Your task to perform on an android device: turn on notifications settings in the gmail app Image 0: 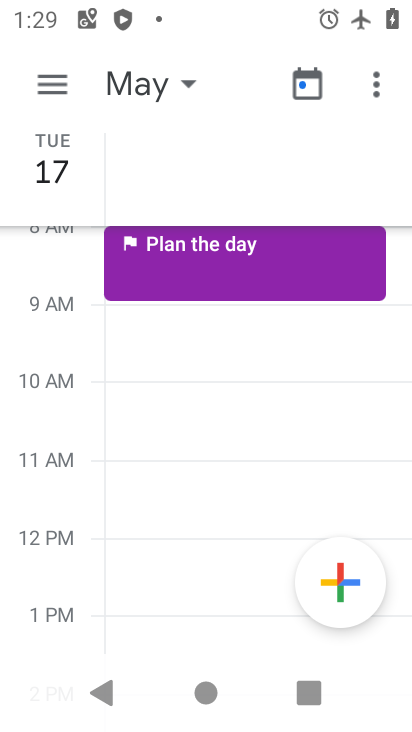
Step 0: press home button
Your task to perform on an android device: turn on notifications settings in the gmail app Image 1: 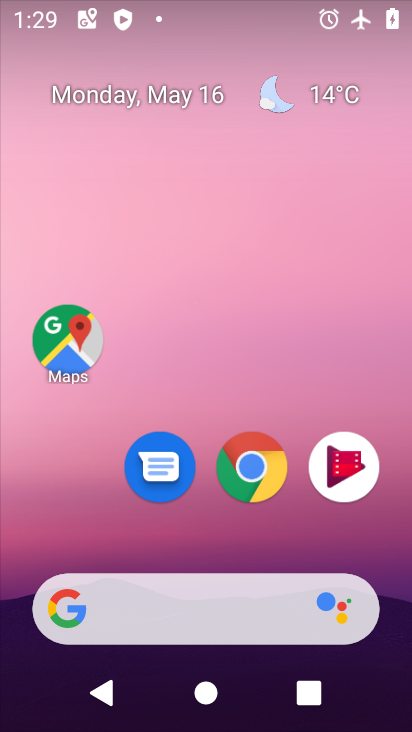
Step 1: drag from (228, 475) to (241, 254)
Your task to perform on an android device: turn on notifications settings in the gmail app Image 2: 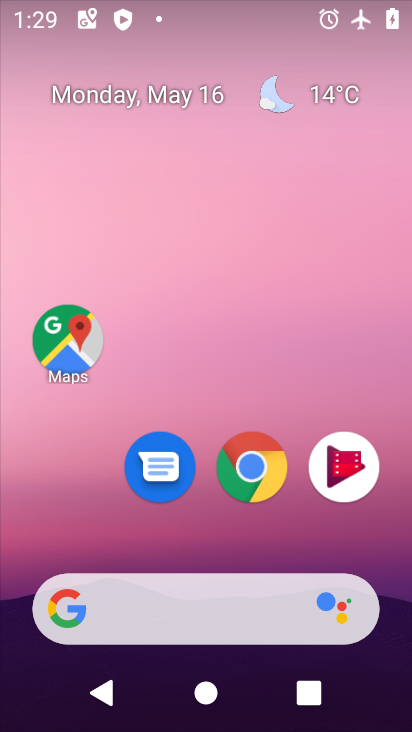
Step 2: drag from (231, 509) to (234, 201)
Your task to perform on an android device: turn on notifications settings in the gmail app Image 3: 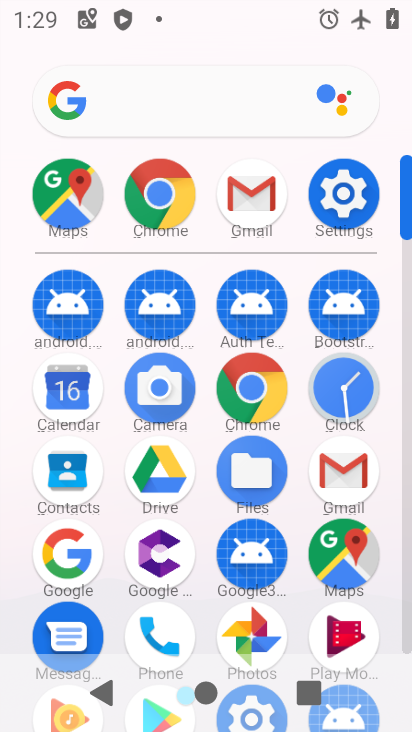
Step 3: click (355, 197)
Your task to perform on an android device: turn on notifications settings in the gmail app Image 4: 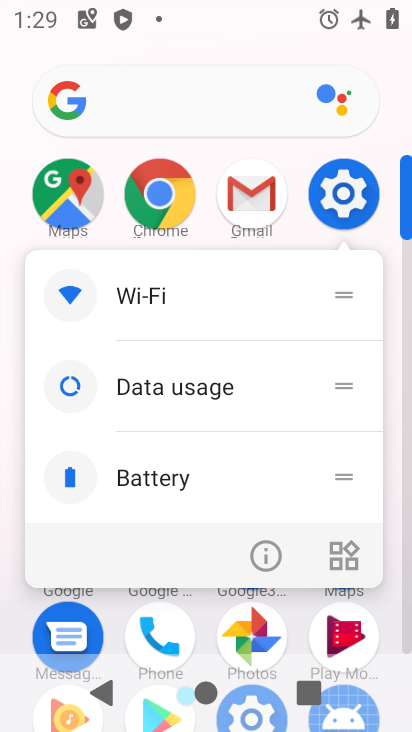
Step 4: click (293, 605)
Your task to perform on an android device: turn on notifications settings in the gmail app Image 5: 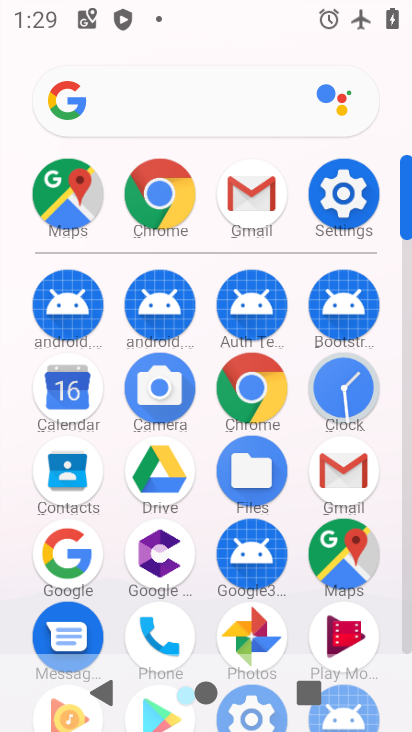
Step 5: drag from (203, 566) to (275, 305)
Your task to perform on an android device: turn on notifications settings in the gmail app Image 6: 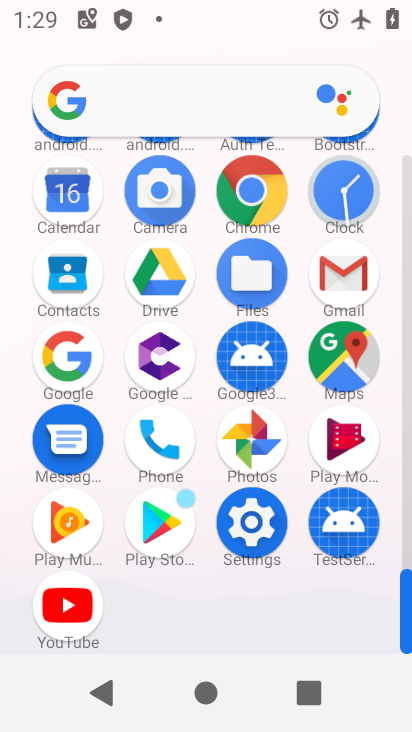
Step 6: drag from (272, 636) to (322, 342)
Your task to perform on an android device: turn on notifications settings in the gmail app Image 7: 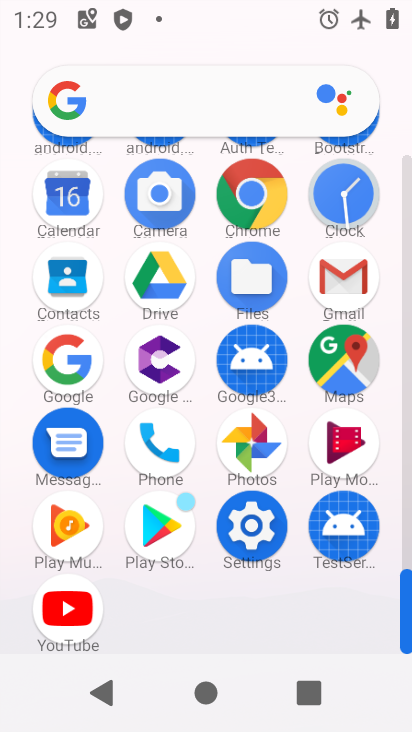
Step 7: click (345, 283)
Your task to perform on an android device: turn on notifications settings in the gmail app Image 8: 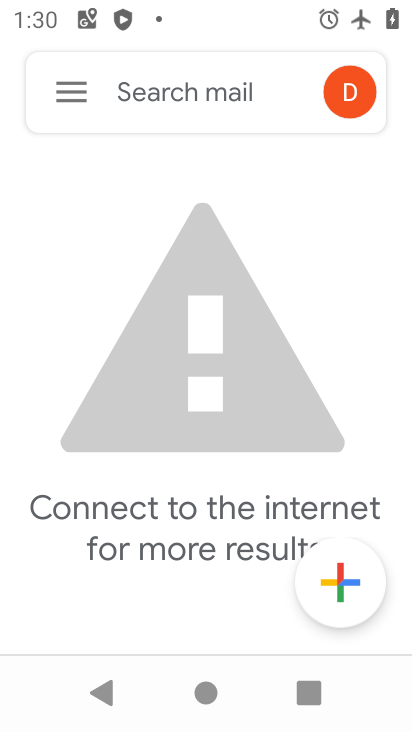
Step 8: click (60, 103)
Your task to perform on an android device: turn on notifications settings in the gmail app Image 9: 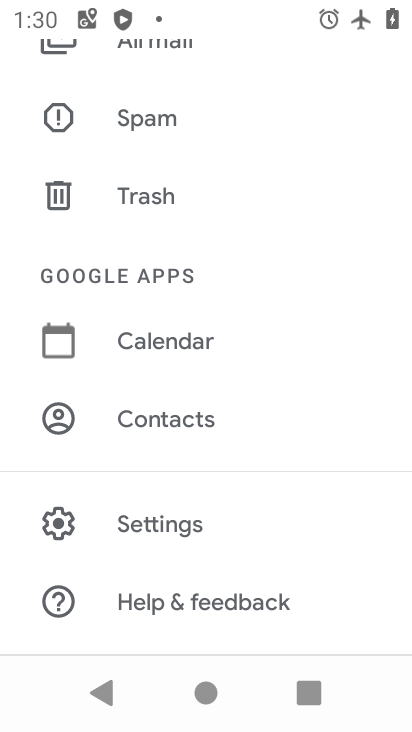
Step 9: click (176, 514)
Your task to perform on an android device: turn on notifications settings in the gmail app Image 10: 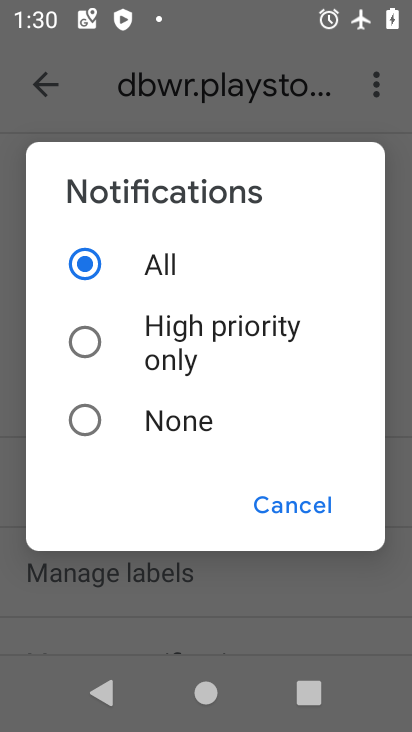
Step 10: click (153, 417)
Your task to perform on an android device: turn on notifications settings in the gmail app Image 11: 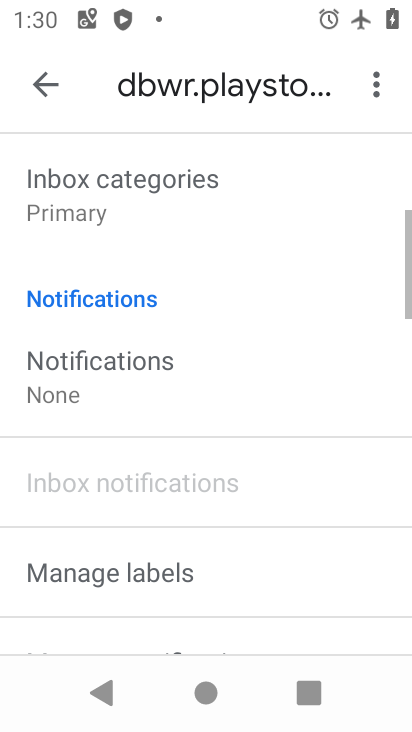
Step 11: click (157, 378)
Your task to perform on an android device: turn on notifications settings in the gmail app Image 12: 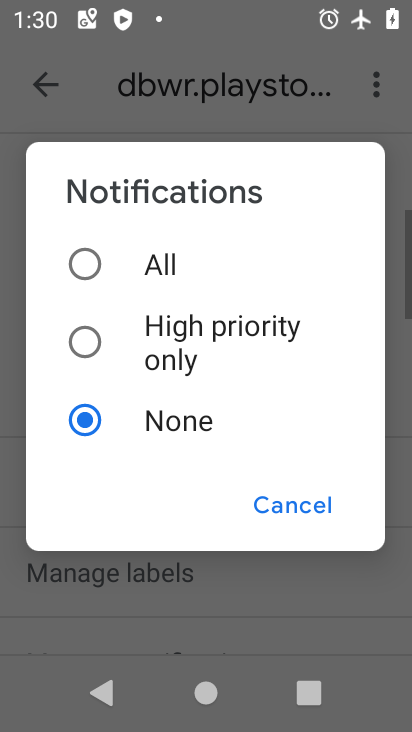
Step 12: click (138, 250)
Your task to perform on an android device: turn on notifications settings in the gmail app Image 13: 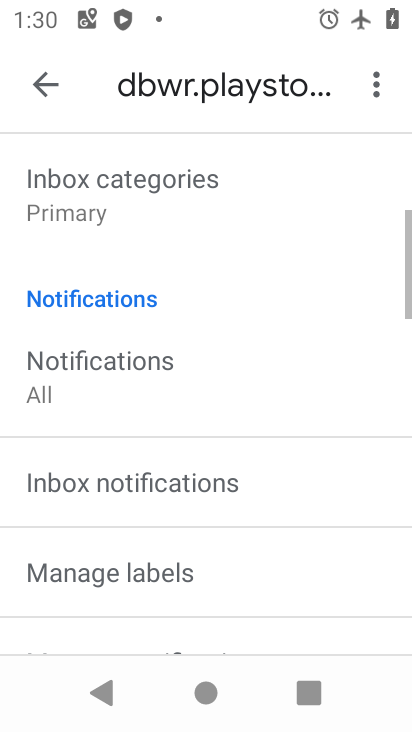
Step 13: task complete